Your task to perform on an android device: Go to privacy settings Image 0: 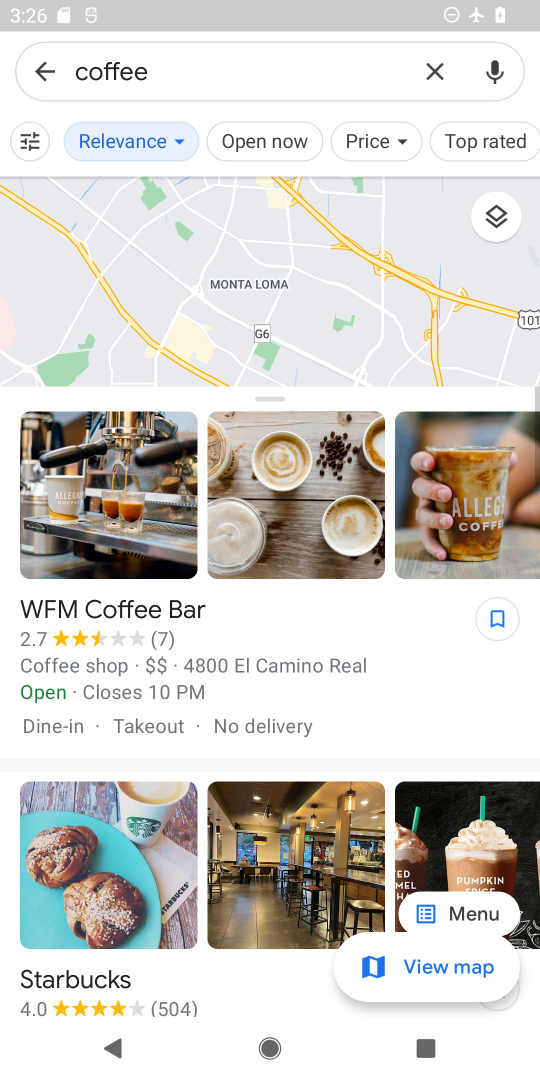
Step 0: press back button
Your task to perform on an android device: Go to privacy settings Image 1: 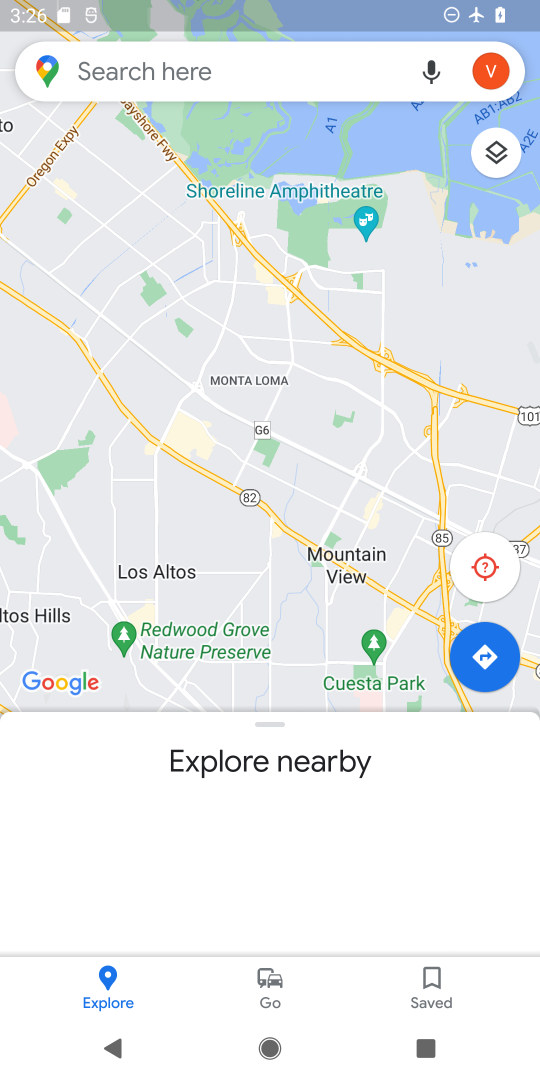
Step 1: press home button
Your task to perform on an android device: Go to privacy settings Image 2: 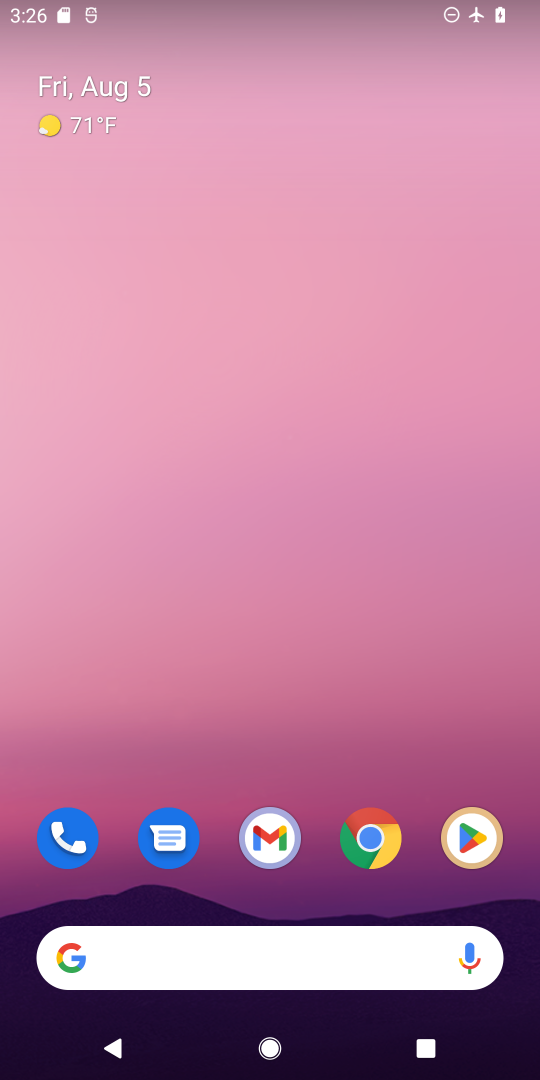
Step 2: drag from (453, 685) to (362, 176)
Your task to perform on an android device: Go to privacy settings Image 3: 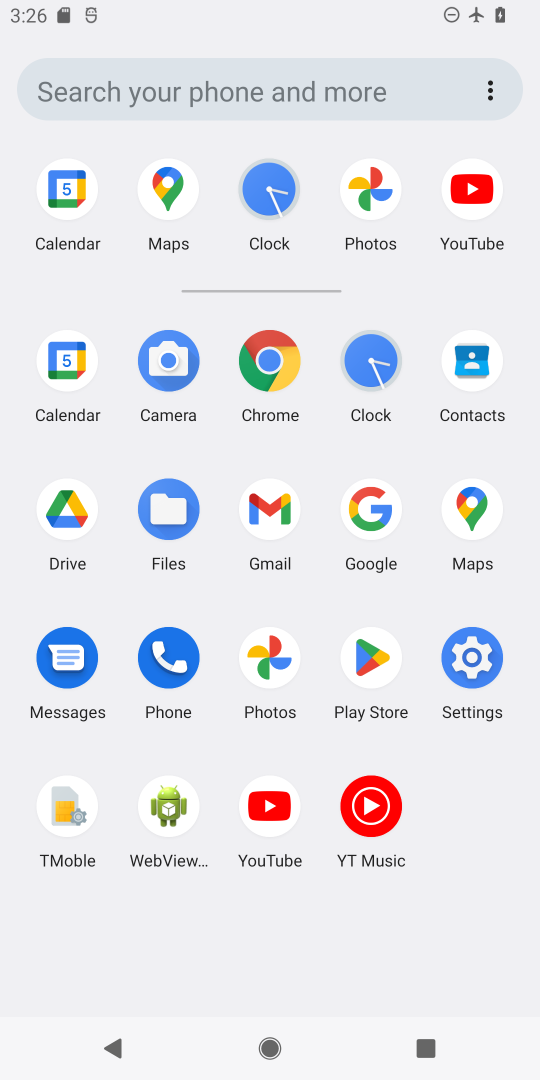
Step 3: click (488, 673)
Your task to perform on an android device: Go to privacy settings Image 4: 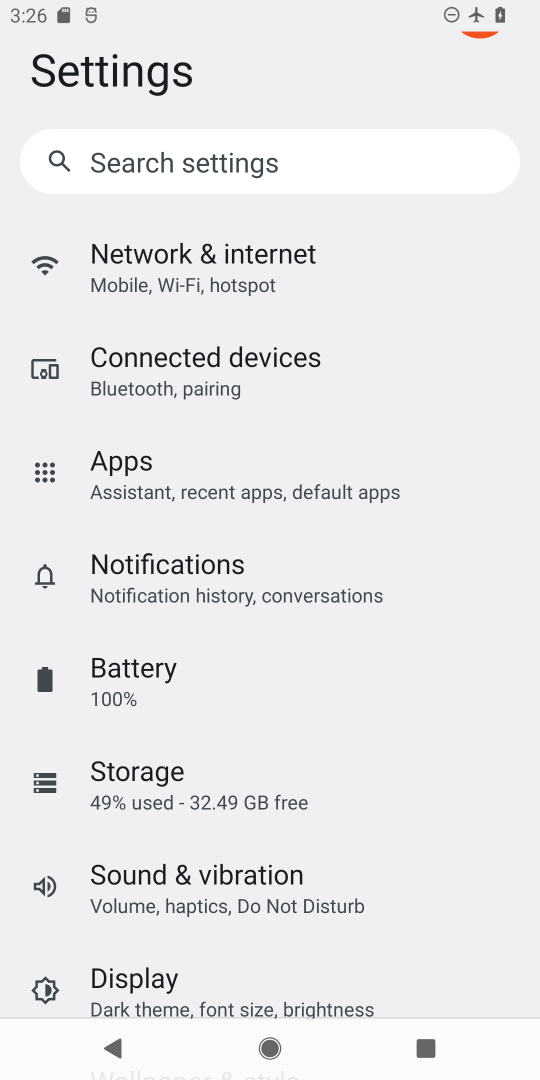
Step 4: drag from (347, 815) to (335, 122)
Your task to perform on an android device: Go to privacy settings Image 5: 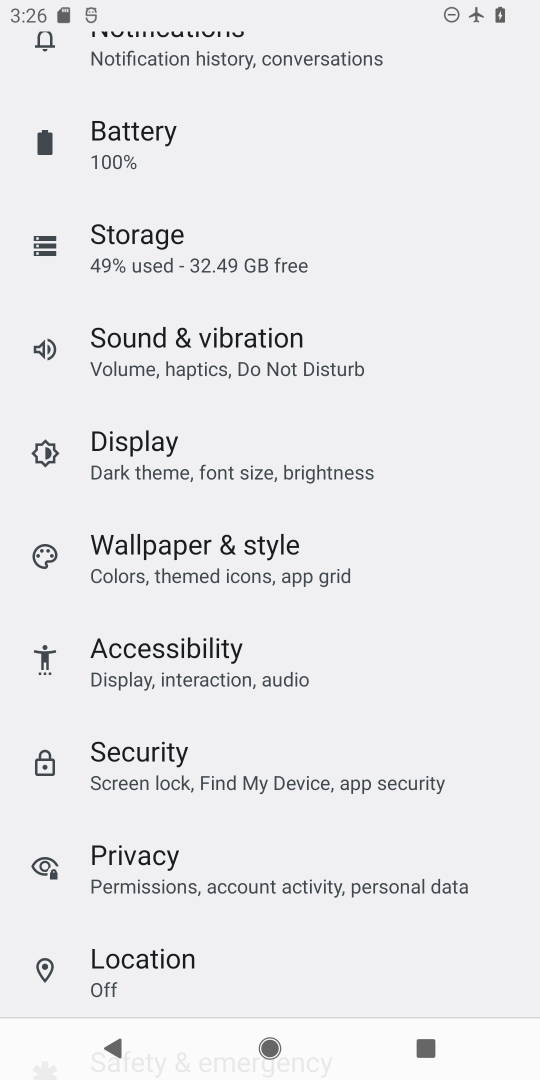
Step 5: click (290, 894)
Your task to perform on an android device: Go to privacy settings Image 6: 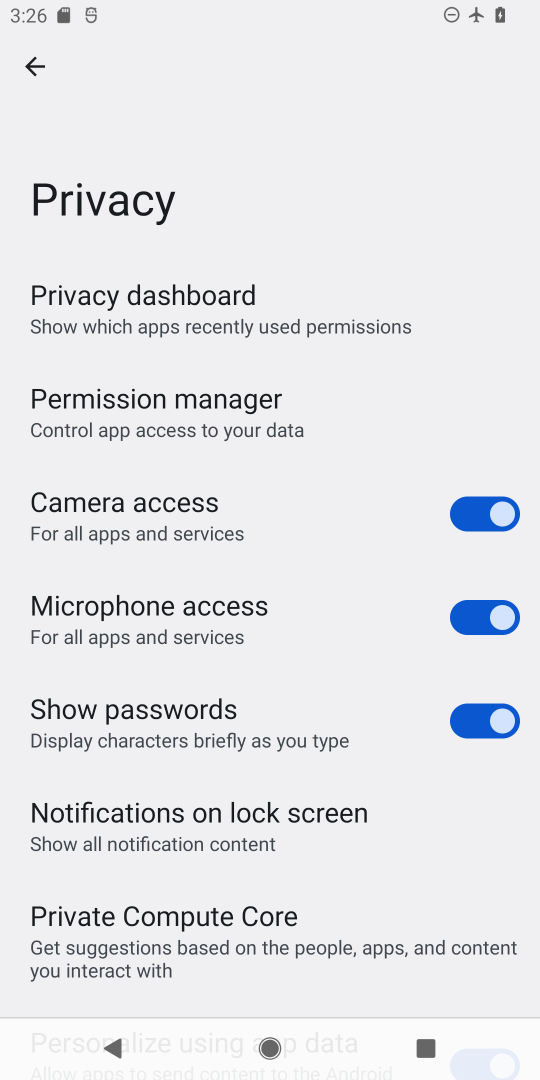
Step 6: task complete